Your task to perform on an android device: Show me recent news Image 0: 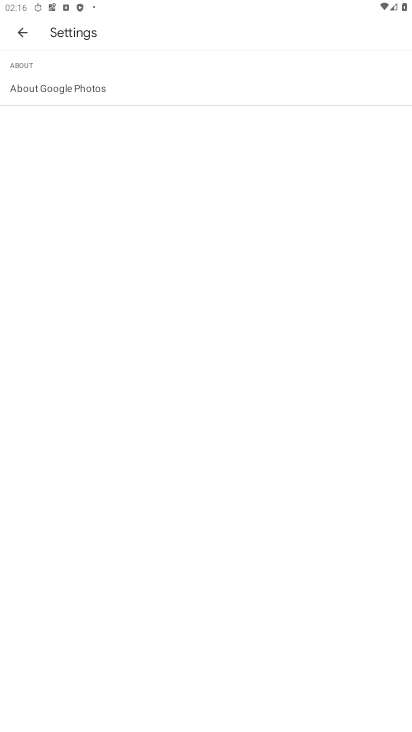
Step 0: press back button
Your task to perform on an android device: Show me recent news Image 1: 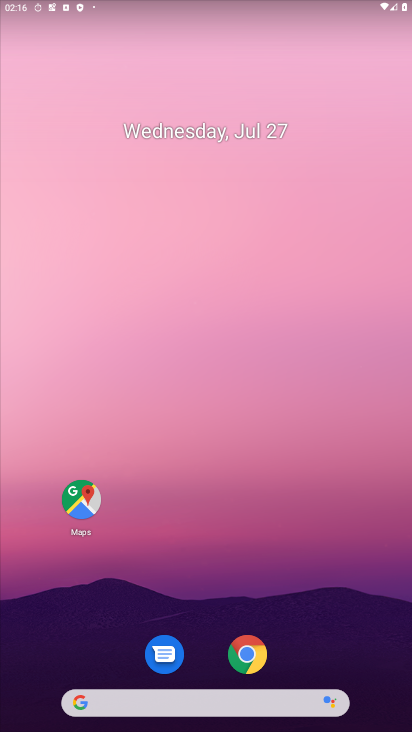
Step 1: drag from (240, 648) to (198, 46)
Your task to perform on an android device: Show me recent news Image 2: 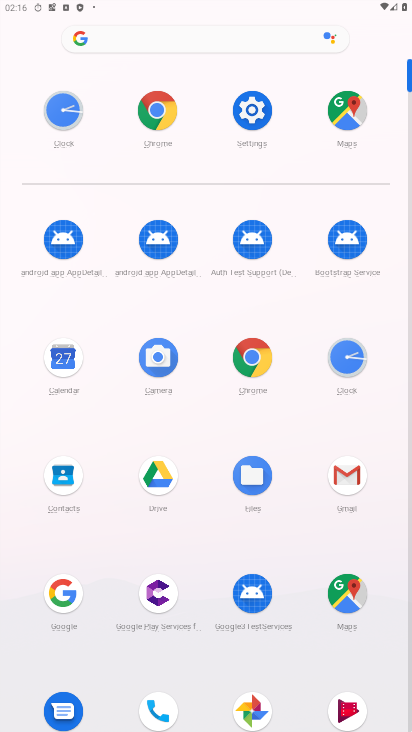
Step 2: click (245, 340)
Your task to perform on an android device: Show me recent news Image 3: 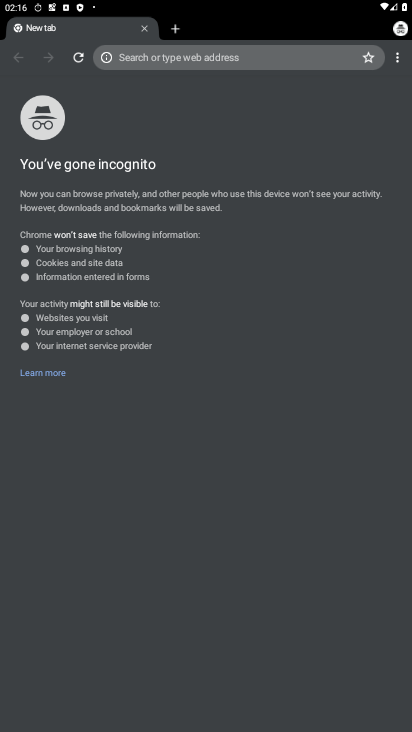
Step 3: click (168, 48)
Your task to perform on an android device: Show me recent news Image 4: 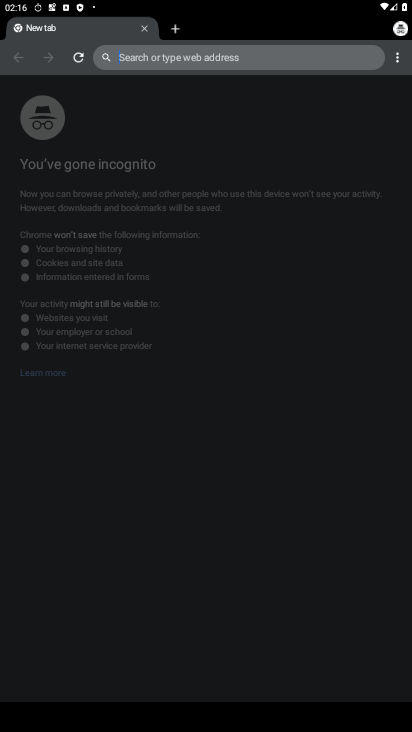
Step 4: click (191, 51)
Your task to perform on an android device: Show me recent news Image 5: 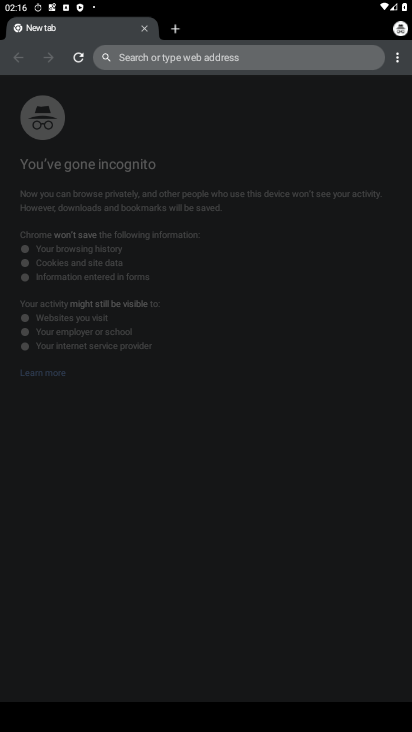
Step 5: click (191, 51)
Your task to perform on an android device: Show me recent news Image 6: 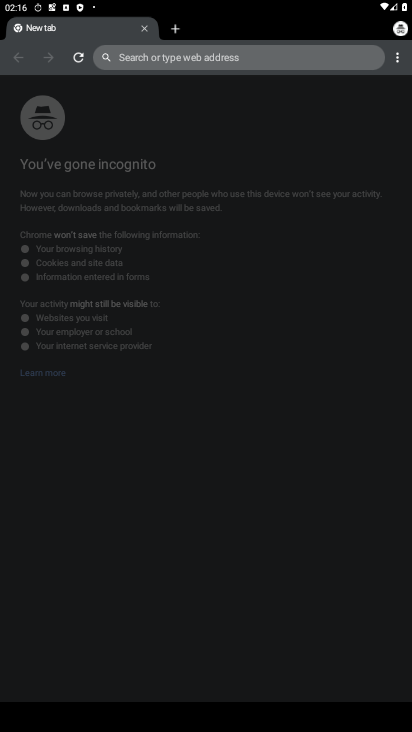
Step 6: type "recent news"
Your task to perform on an android device: Show me recent news Image 7: 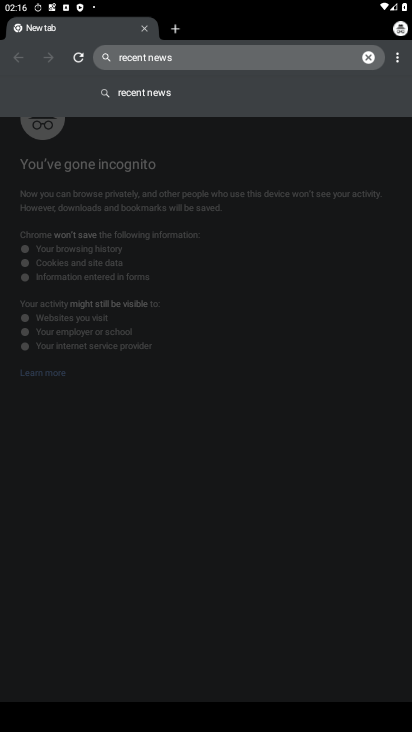
Step 7: click (163, 89)
Your task to perform on an android device: Show me recent news Image 8: 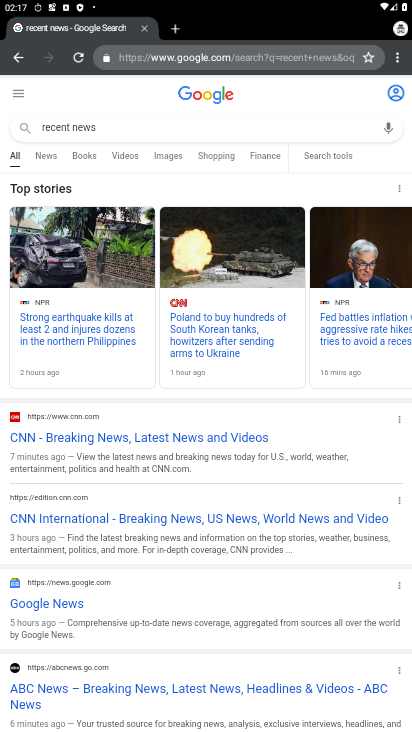
Step 8: task complete